Your task to perform on an android device: Open Google Chrome and open the bookmarks view Image 0: 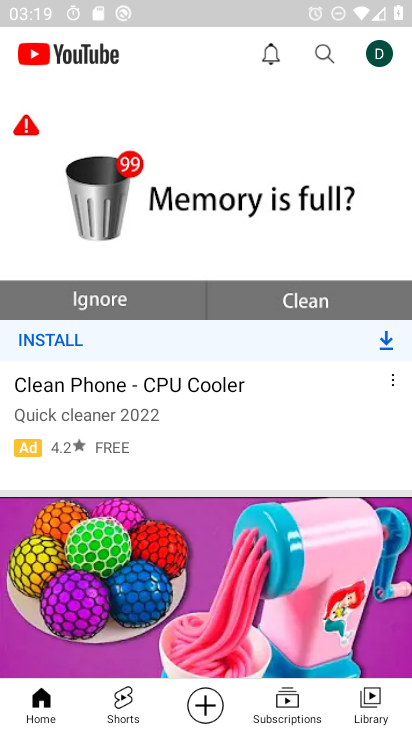
Step 0: press back button
Your task to perform on an android device: Open Google Chrome and open the bookmarks view Image 1: 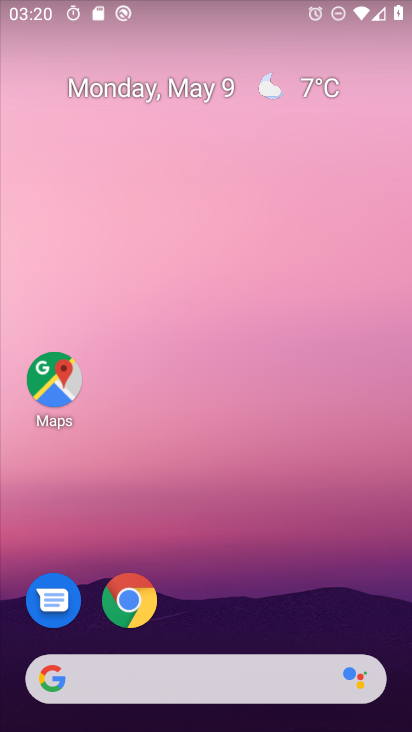
Step 1: click (129, 610)
Your task to perform on an android device: Open Google Chrome and open the bookmarks view Image 2: 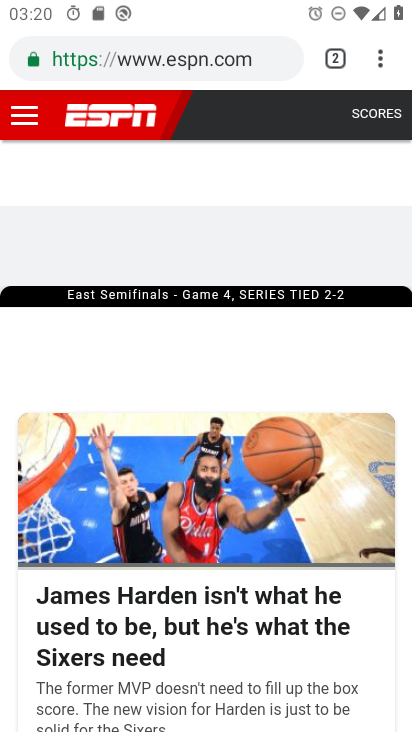
Step 2: click (381, 68)
Your task to perform on an android device: Open Google Chrome and open the bookmarks view Image 3: 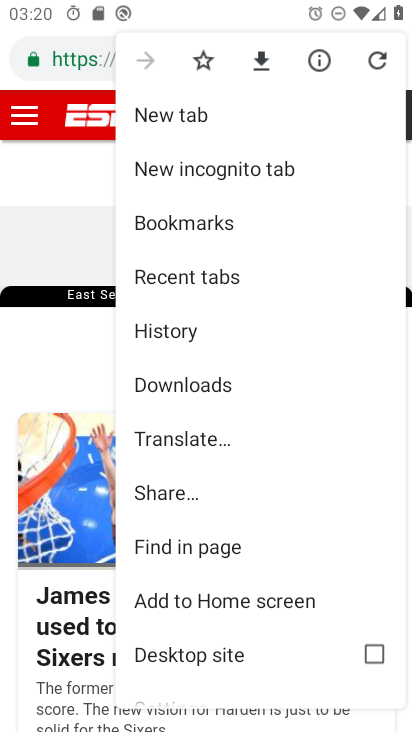
Step 3: click (173, 212)
Your task to perform on an android device: Open Google Chrome and open the bookmarks view Image 4: 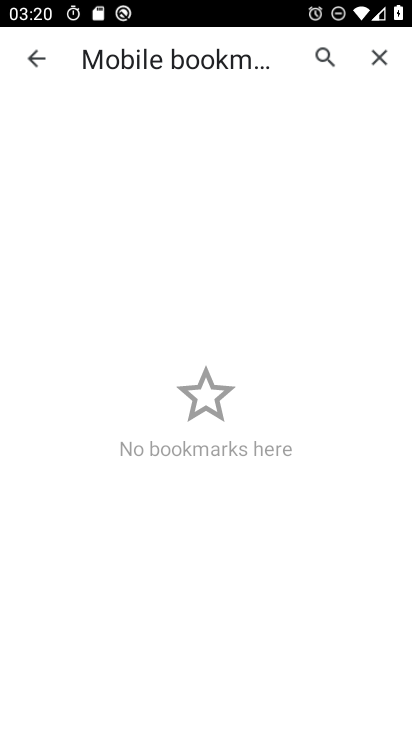
Step 4: task complete